Your task to perform on an android device: Turn on the flashlight Image 0: 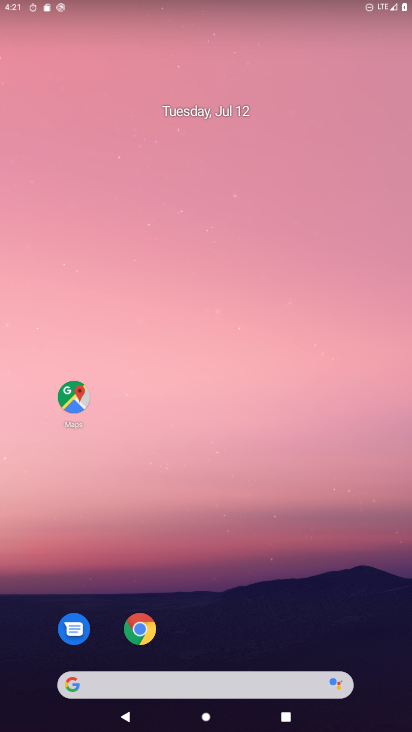
Step 0: press home button
Your task to perform on an android device: Turn on the flashlight Image 1: 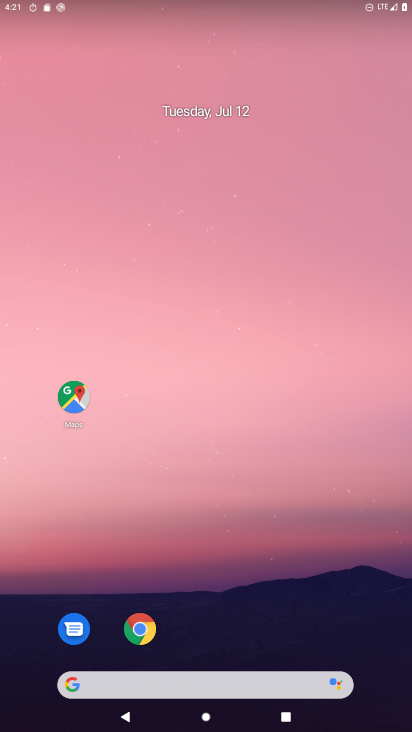
Step 1: task complete